Your task to perform on an android device: check data usage Image 0: 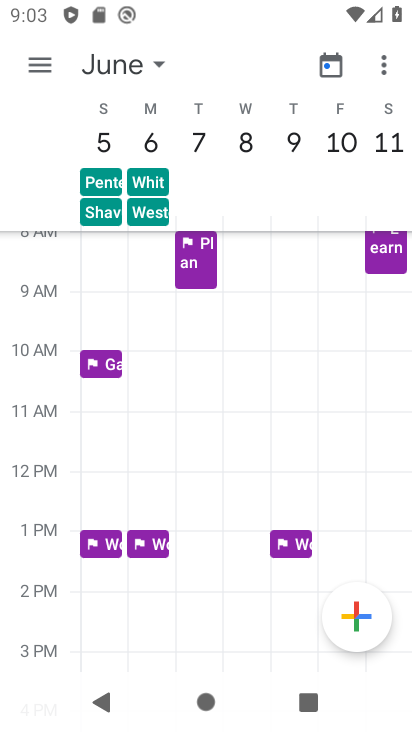
Step 0: press home button
Your task to perform on an android device: check data usage Image 1: 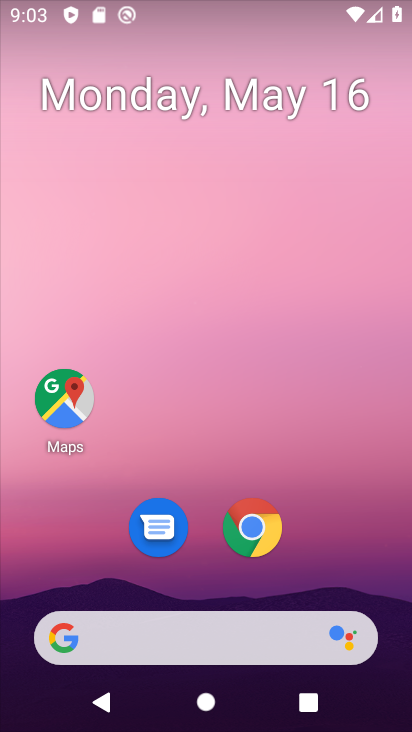
Step 1: drag from (337, 579) to (322, 7)
Your task to perform on an android device: check data usage Image 2: 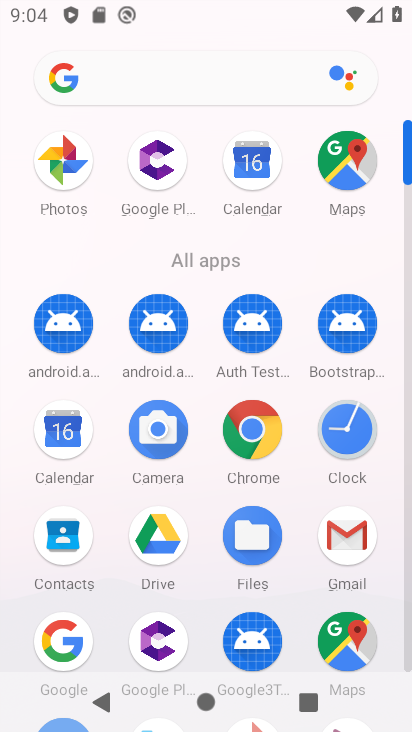
Step 2: drag from (407, 463) to (405, 384)
Your task to perform on an android device: check data usage Image 3: 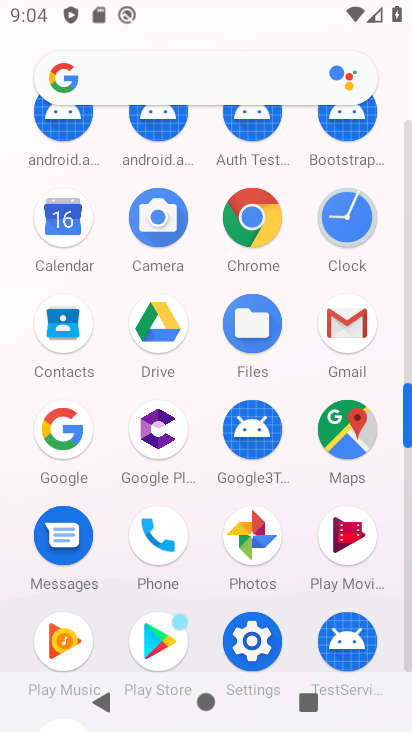
Step 3: click (243, 645)
Your task to perform on an android device: check data usage Image 4: 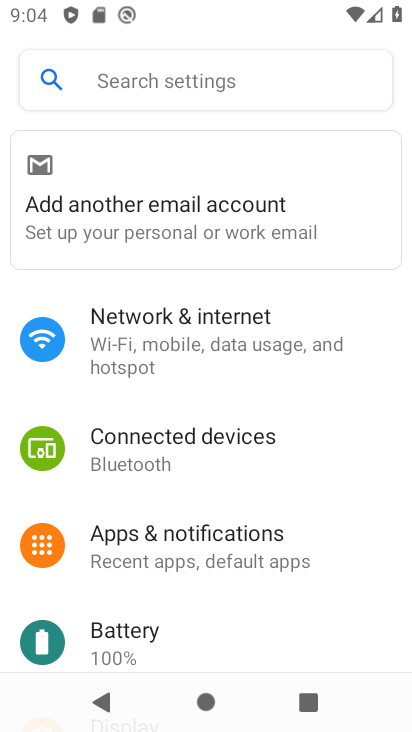
Step 4: click (161, 316)
Your task to perform on an android device: check data usage Image 5: 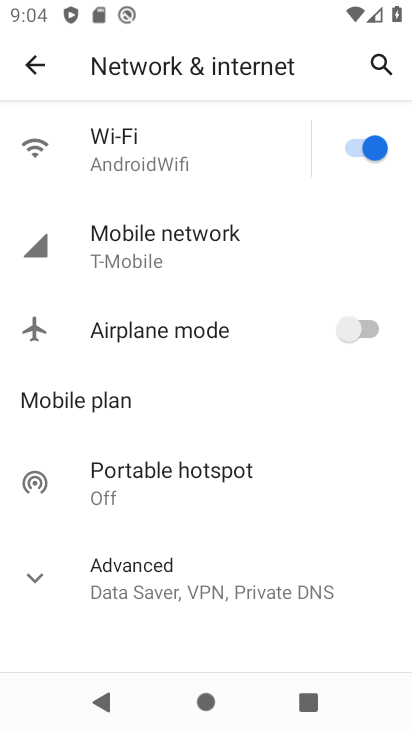
Step 5: click (142, 266)
Your task to perform on an android device: check data usage Image 6: 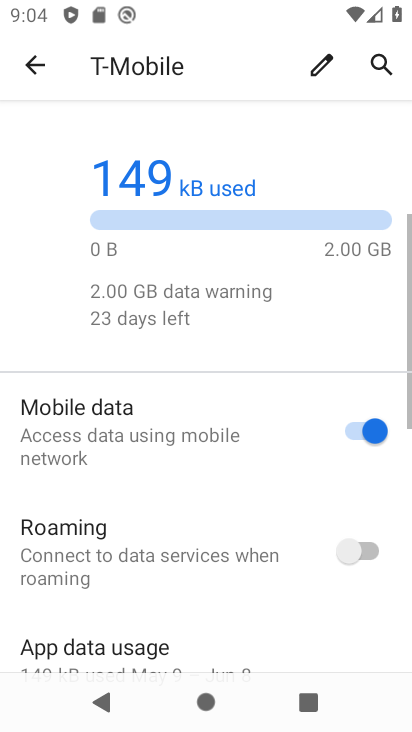
Step 6: drag from (123, 445) to (152, 134)
Your task to perform on an android device: check data usage Image 7: 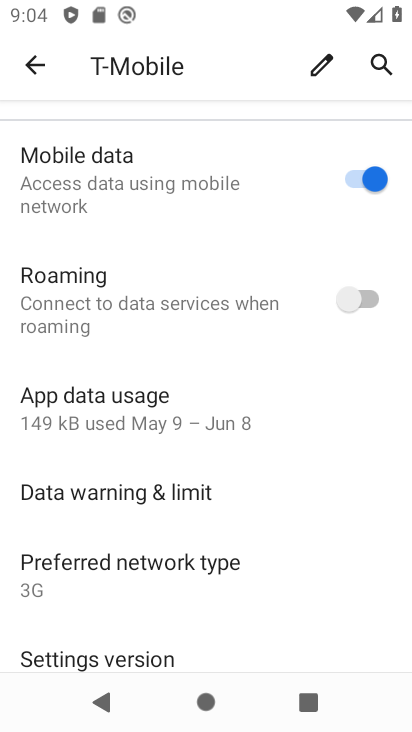
Step 7: click (93, 422)
Your task to perform on an android device: check data usage Image 8: 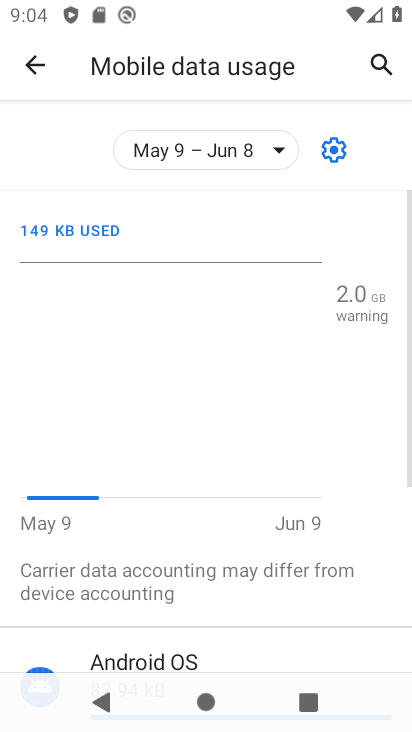
Step 8: task complete